Your task to perform on an android device: toggle notifications settings in the gmail app Image 0: 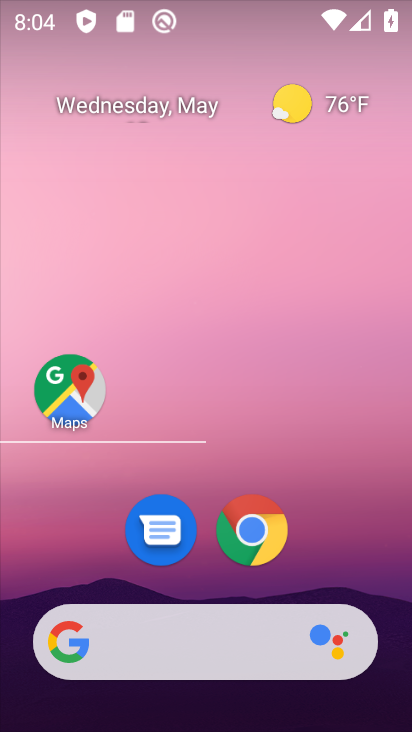
Step 0: click (322, 266)
Your task to perform on an android device: toggle notifications settings in the gmail app Image 1: 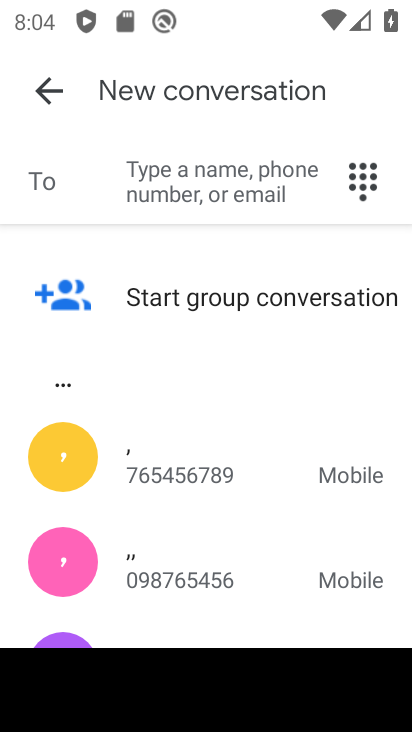
Step 1: press home button
Your task to perform on an android device: toggle notifications settings in the gmail app Image 2: 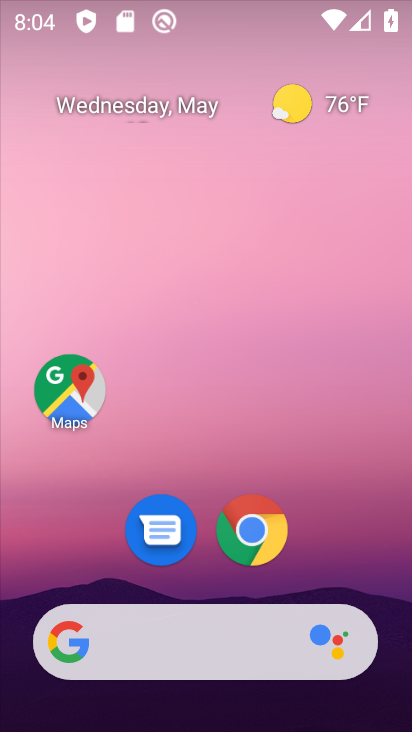
Step 2: drag from (364, 521) to (317, 184)
Your task to perform on an android device: toggle notifications settings in the gmail app Image 3: 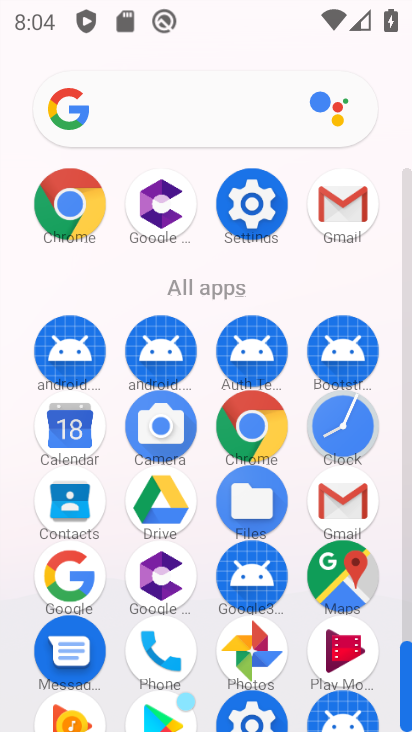
Step 3: click (336, 505)
Your task to perform on an android device: toggle notifications settings in the gmail app Image 4: 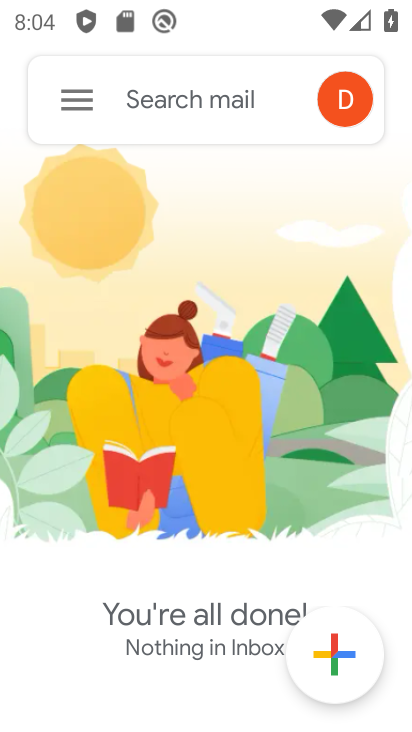
Step 4: click (58, 88)
Your task to perform on an android device: toggle notifications settings in the gmail app Image 5: 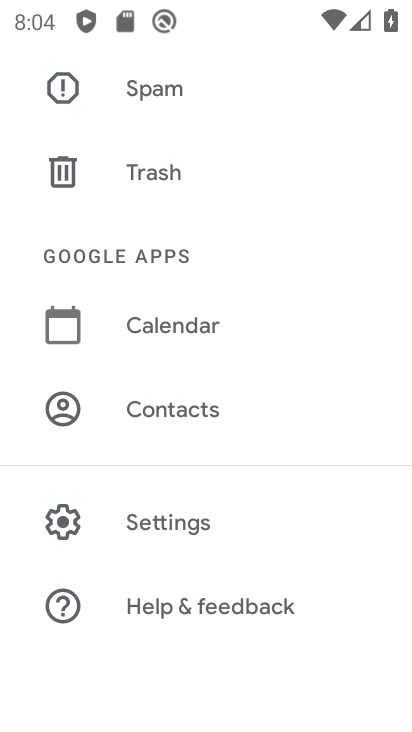
Step 5: click (155, 518)
Your task to perform on an android device: toggle notifications settings in the gmail app Image 6: 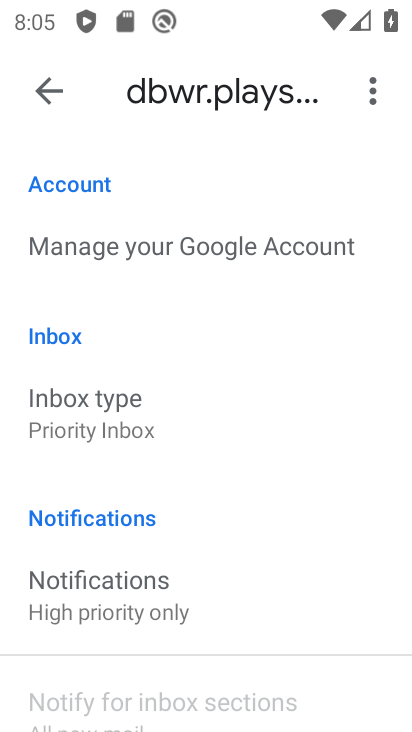
Step 6: click (119, 585)
Your task to perform on an android device: toggle notifications settings in the gmail app Image 7: 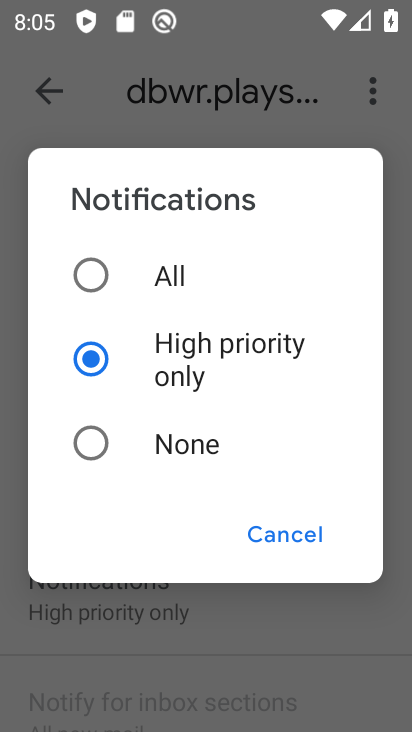
Step 7: click (85, 267)
Your task to perform on an android device: toggle notifications settings in the gmail app Image 8: 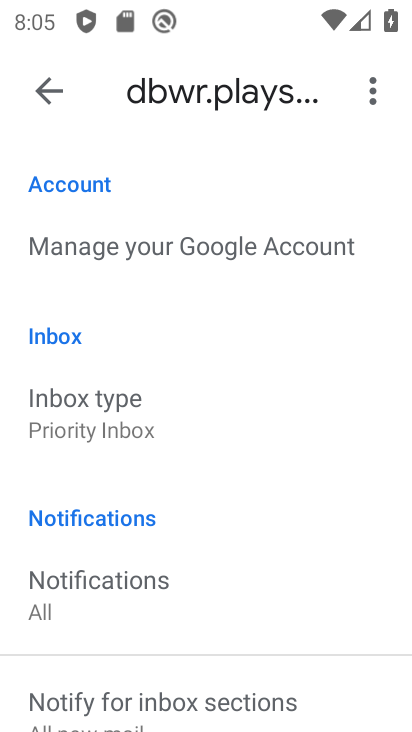
Step 8: task complete